Your task to perform on an android device: turn on wifi Image 0: 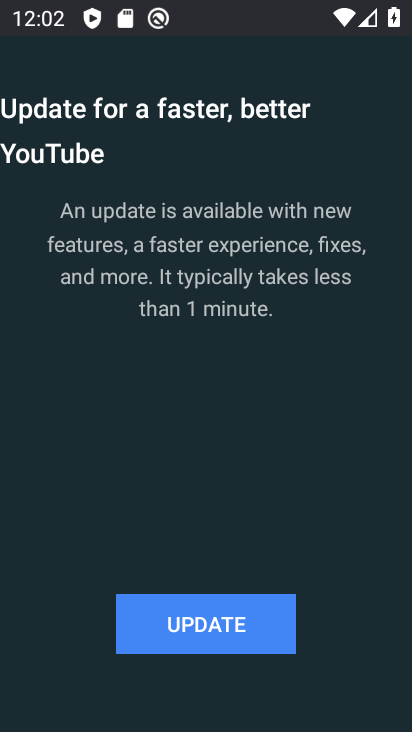
Step 0: press home button
Your task to perform on an android device: turn on wifi Image 1: 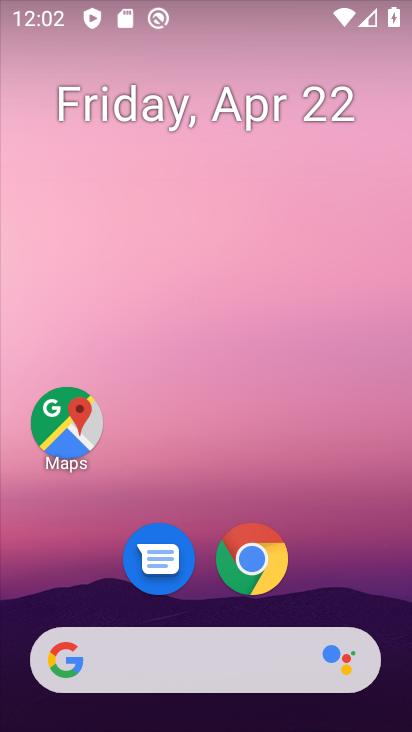
Step 1: drag from (342, 539) to (337, 109)
Your task to perform on an android device: turn on wifi Image 2: 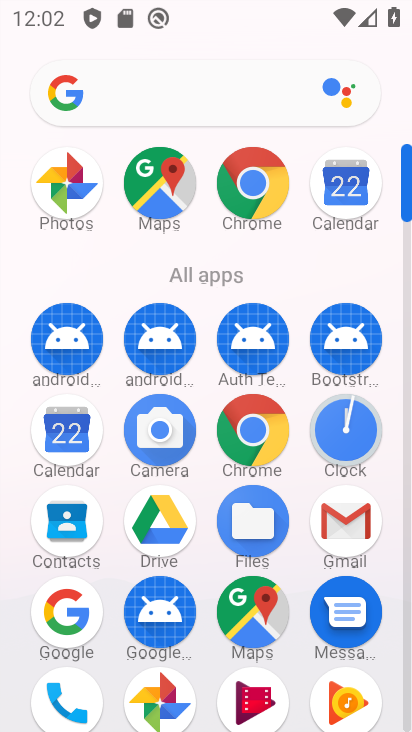
Step 2: drag from (391, 497) to (381, 273)
Your task to perform on an android device: turn on wifi Image 3: 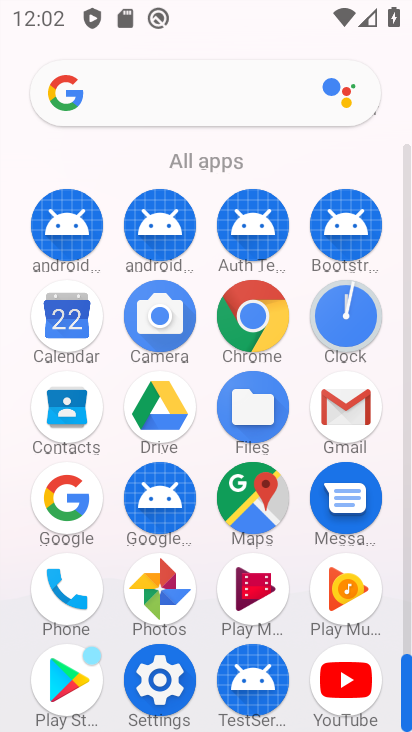
Step 3: click (149, 681)
Your task to perform on an android device: turn on wifi Image 4: 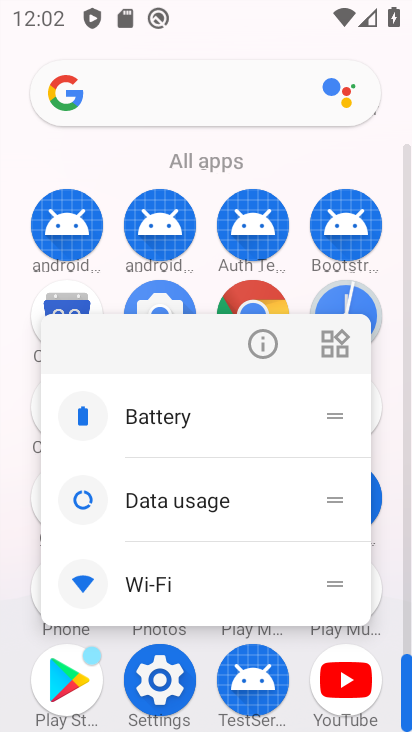
Step 4: click (162, 674)
Your task to perform on an android device: turn on wifi Image 5: 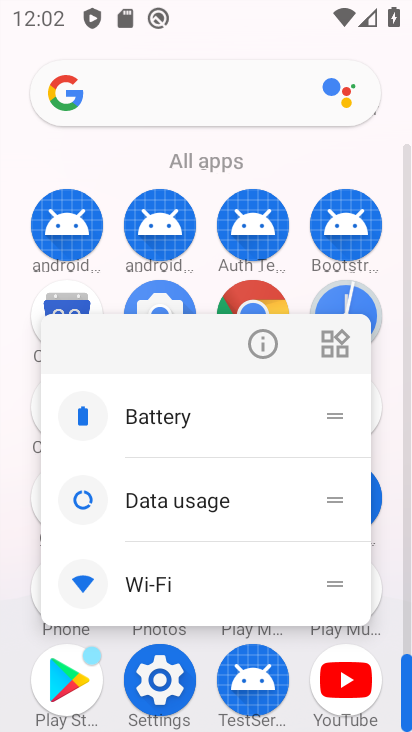
Step 5: click (138, 689)
Your task to perform on an android device: turn on wifi Image 6: 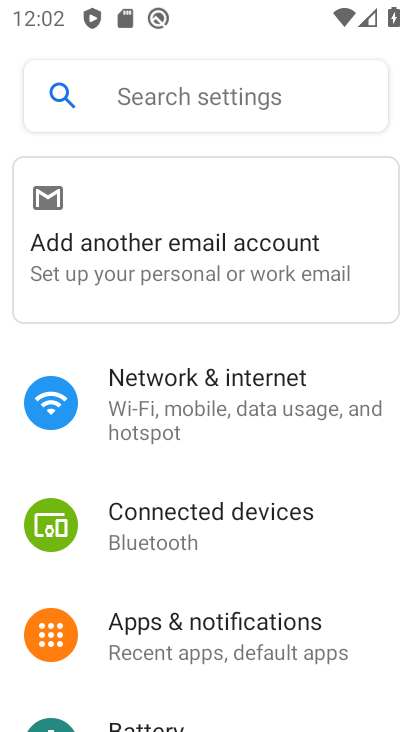
Step 6: click (315, 399)
Your task to perform on an android device: turn on wifi Image 7: 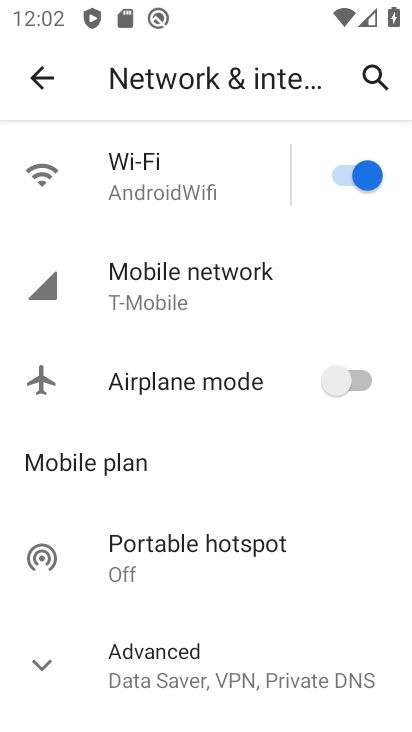
Step 7: task complete